Your task to perform on an android device: toggle translation in the chrome app Image 0: 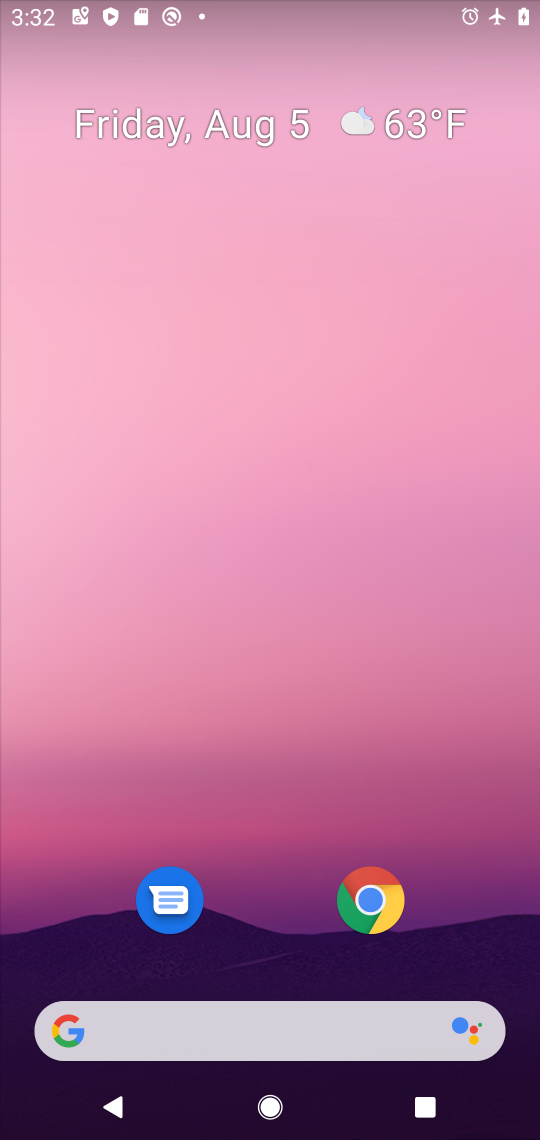
Step 0: click (388, 889)
Your task to perform on an android device: toggle translation in the chrome app Image 1: 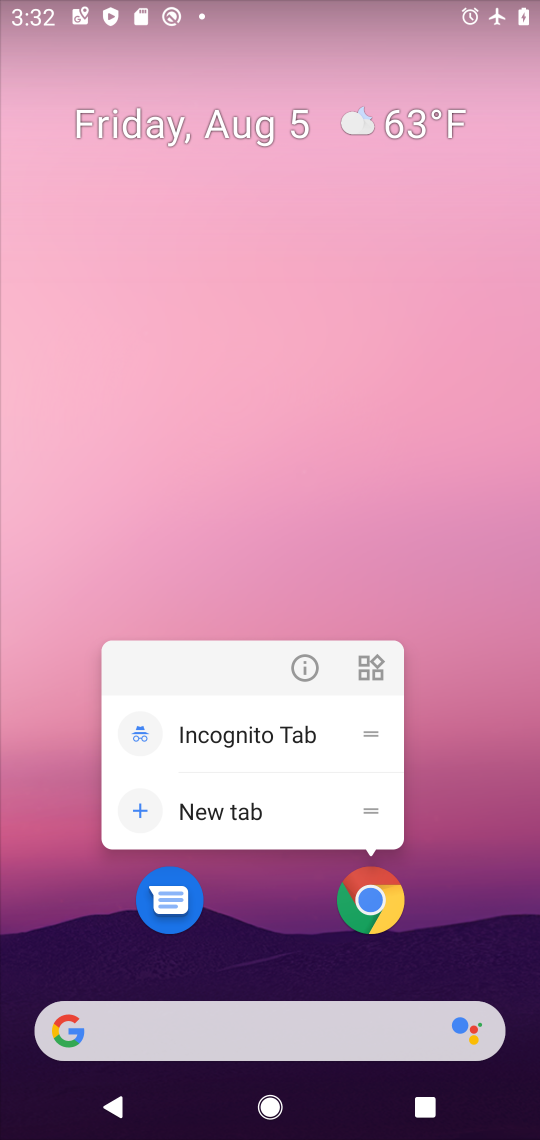
Step 1: click (371, 892)
Your task to perform on an android device: toggle translation in the chrome app Image 2: 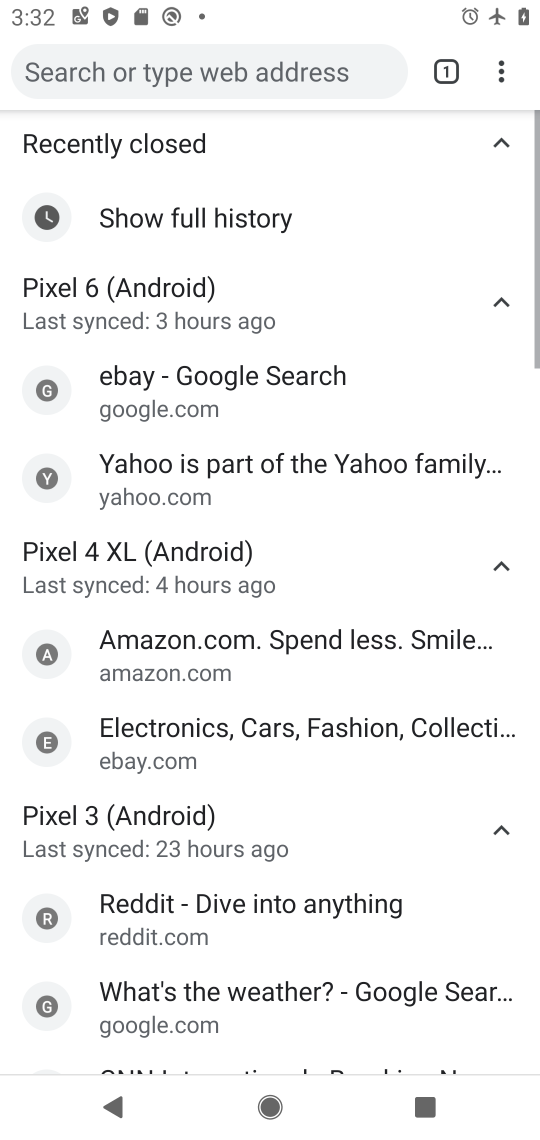
Step 2: drag from (507, 69) to (274, 608)
Your task to perform on an android device: toggle translation in the chrome app Image 3: 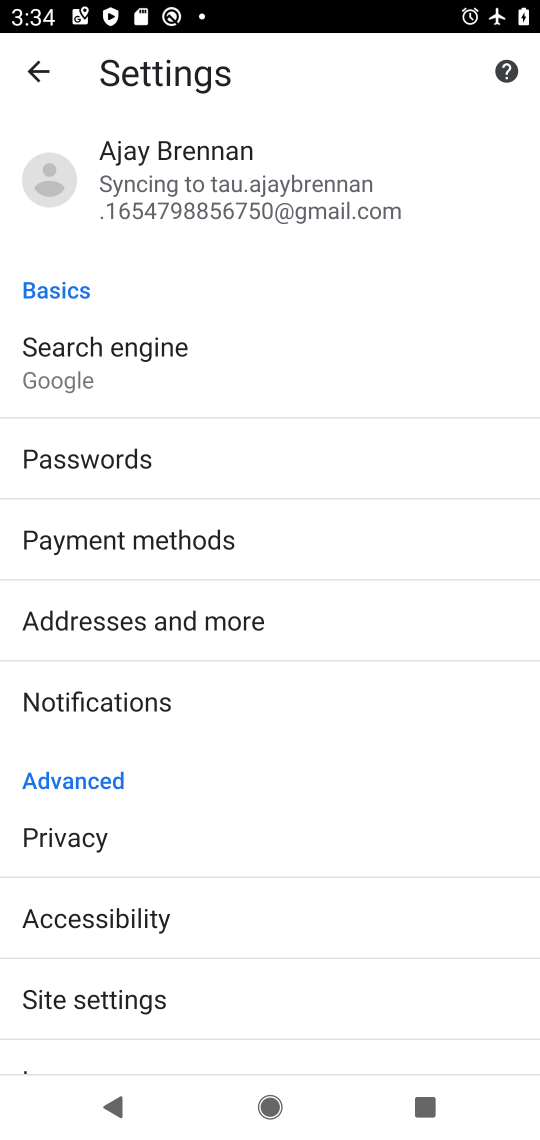
Step 3: drag from (225, 975) to (292, 74)
Your task to perform on an android device: toggle translation in the chrome app Image 4: 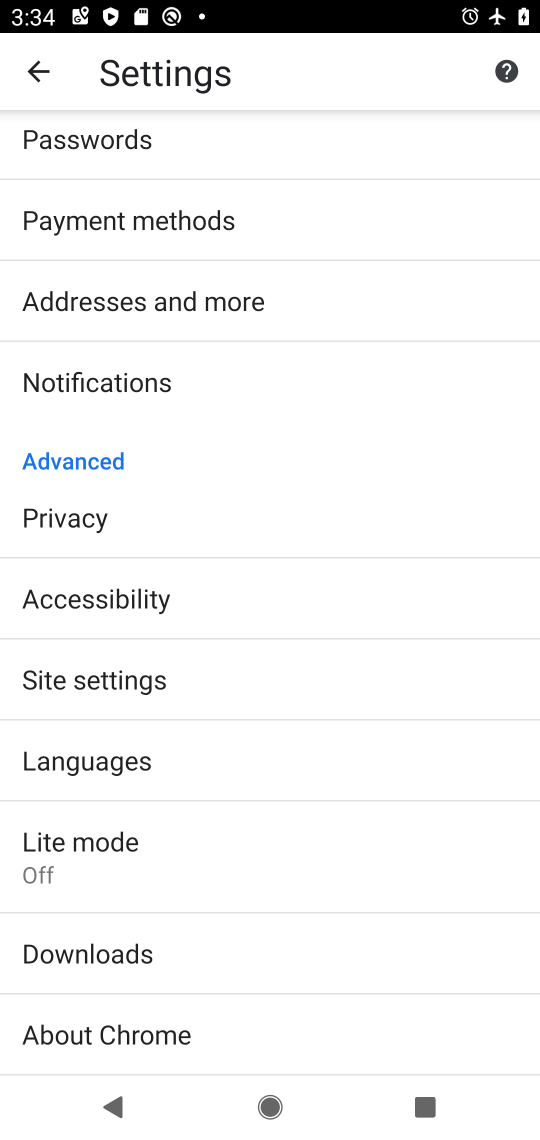
Step 4: click (119, 757)
Your task to perform on an android device: toggle translation in the chrome app Image 5: 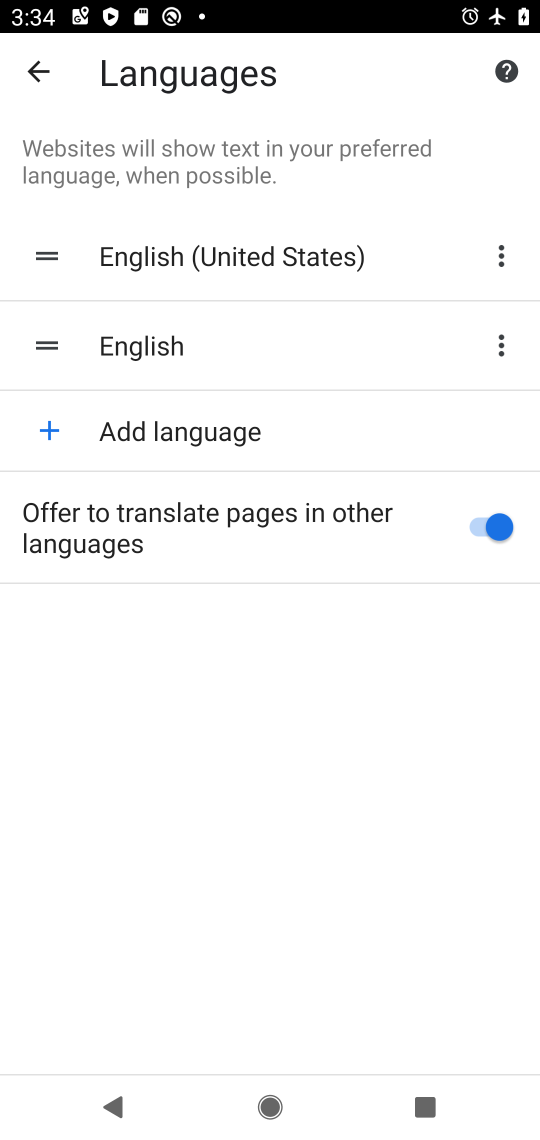
Step 5: click (507, 523)
Your task to perform on an android device: toggle translation in the chrome app Image 6: 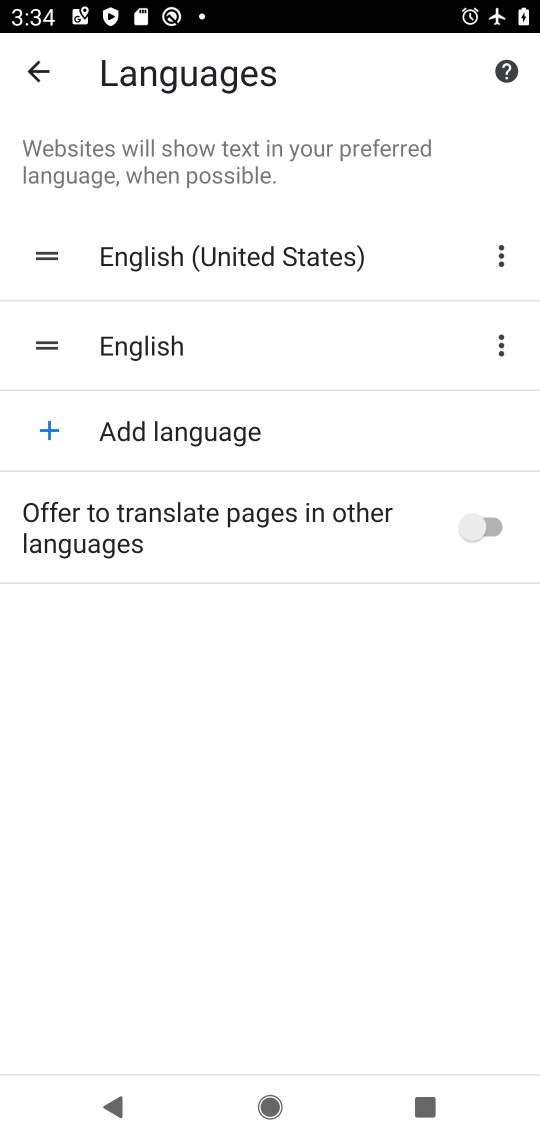
Step 6: task complete